Your task to perform on an android device: Clear the cart on newegg.com. Image 0: 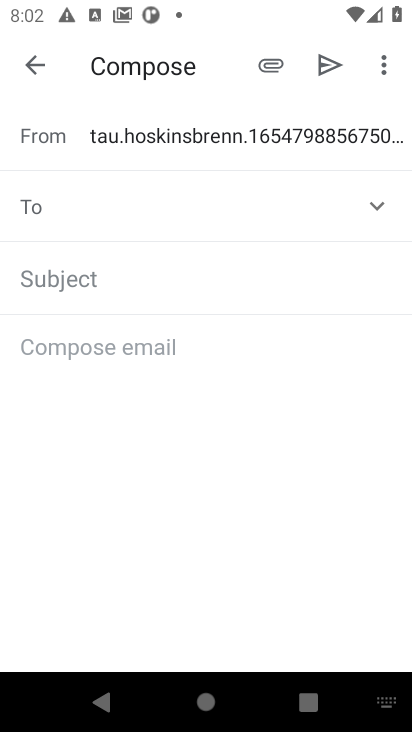
Step 0: press home button
Your task to perform on an android device: Clear the cart on newegg.com. Image 1: 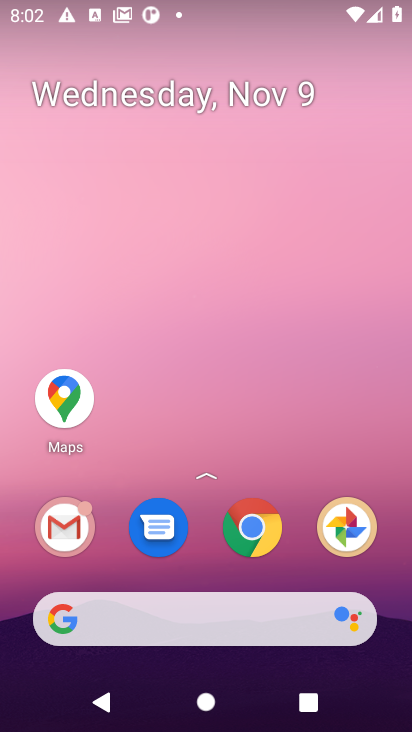
Step 1: click (257, 533)
Your task to perform on an android device: Clear the cart on newegg.com. Image 2: 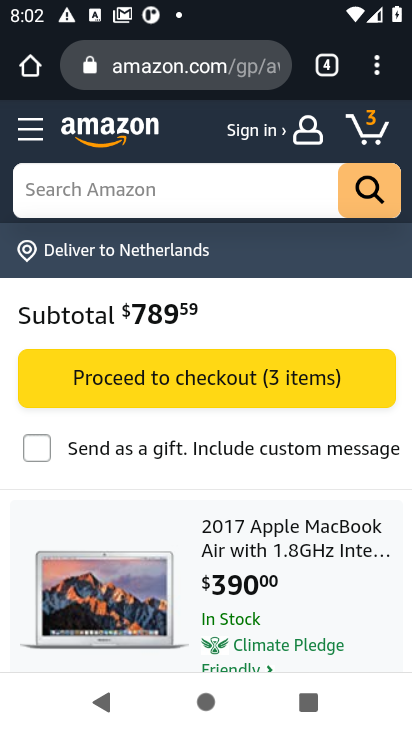
Step 2: click (164, 73)
Your task to perform on an android device: Clear the cart on newegg.com. Image 3: 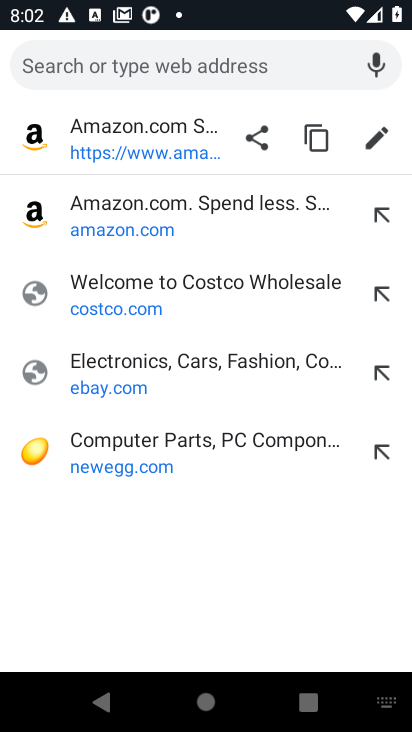
Step 3: click (109, 461)
Your task to perform on an android device: Clear the cart on newegg.com. Image 4: 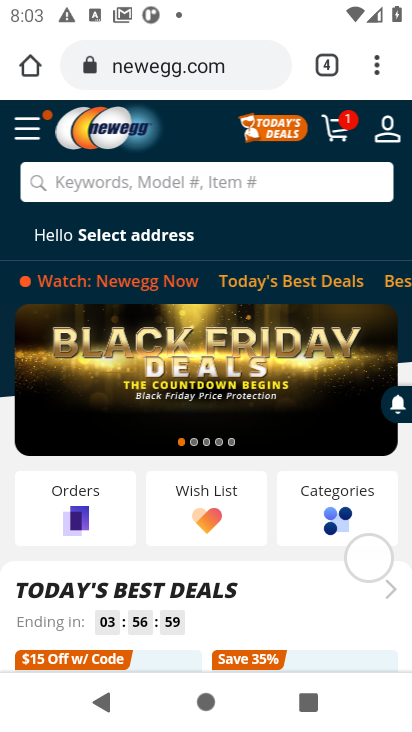
Step 4: click (333, 136)
Your task to perform on an android device: Clear the cart on newegg.com. Image 5: 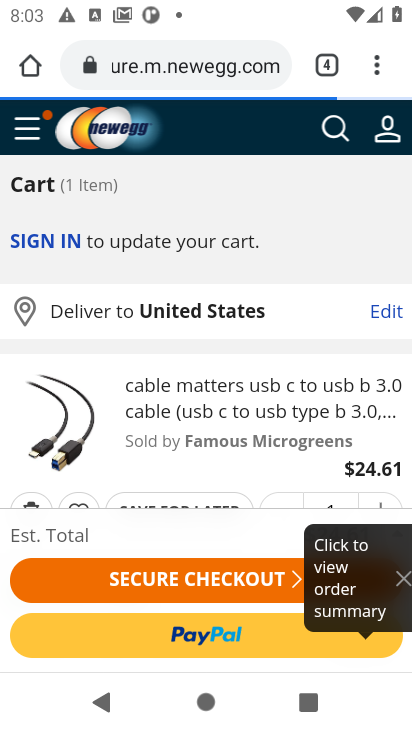
Step 5: drag from (214, 455) to (234, 259)
Your task to perform on an android device: Clear the cart on newegg.com. Image 6: 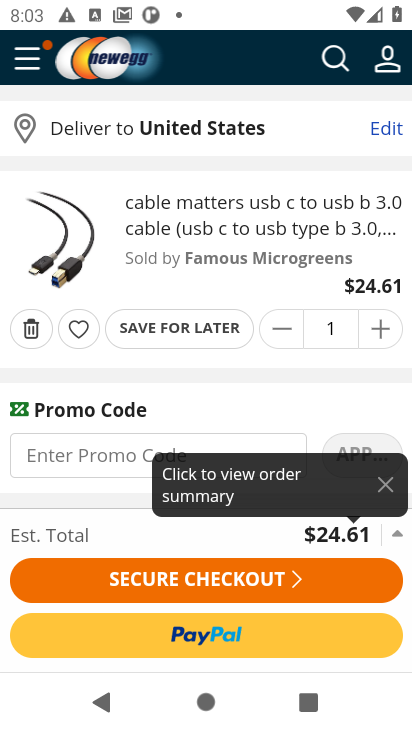
Step 6: click (30, 322)
Your task to perform on an android device: Clear the cart on newegg.com. Image 7: 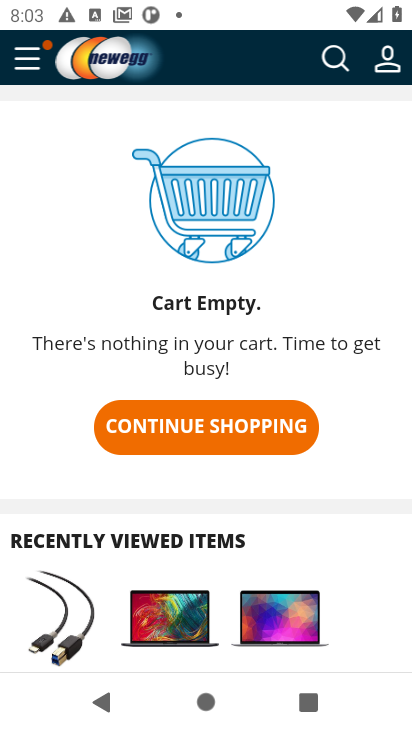
Step 7: task complete